Your task to perform on an android device: find snoozed emails in the gmail app Image 0: 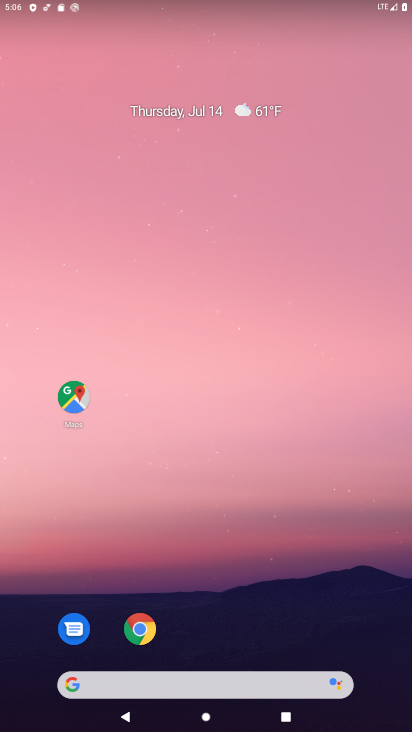
Step 0: drag from (236, 590) to (229, 147)
Your task to perform on an android device: find snoozed emails in the gmail app Image 1: 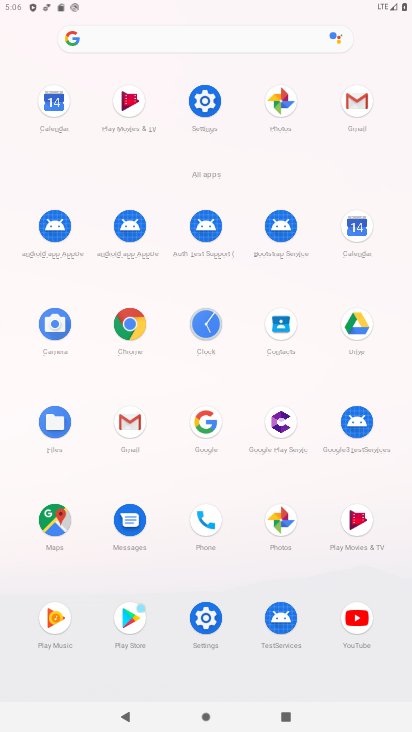
Step 1: click (135, 417)
Your task to perform on an android device: find snoozed emails in the gmail app Image 2: 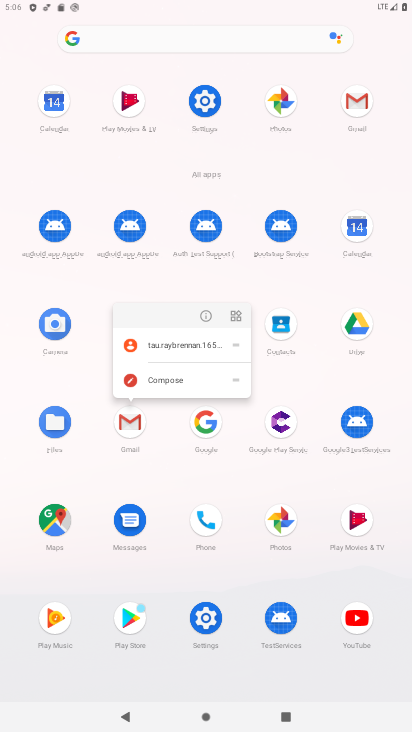
Step 2: click (135, 417)
Your task to perform on an android device: find snoozed emails in the gmail app Image 3: 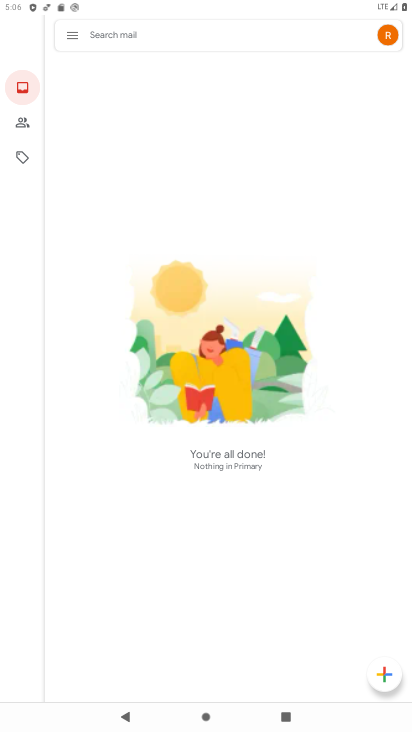
Step 3: click (71, 33)
Your task to perform on an android device: find snoozed emails in the gmail app Image 4: 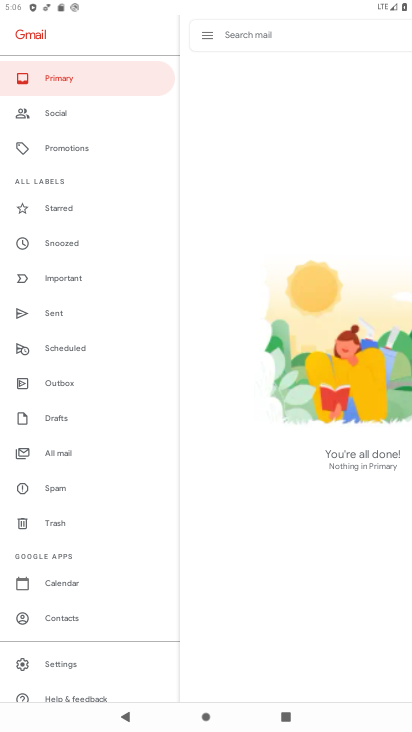
Step 4: click (64, 242)
Your task to perform on an android device: find snoozed emails in the gmail app Image 5: 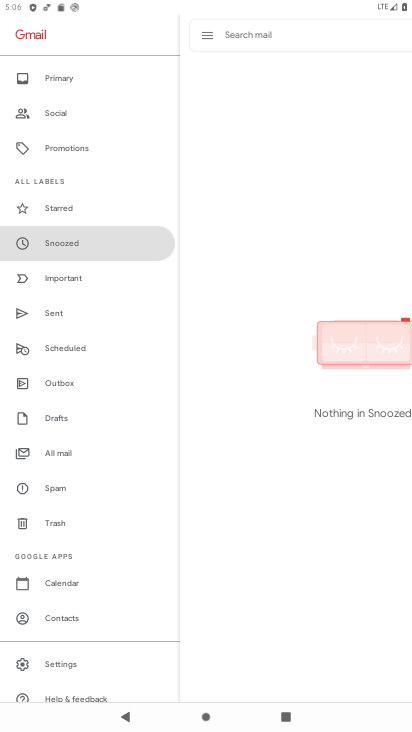
Step 5: click (64, 242)
Your task to perform on an android device: find snoozed emails in the gmail app Image 6: 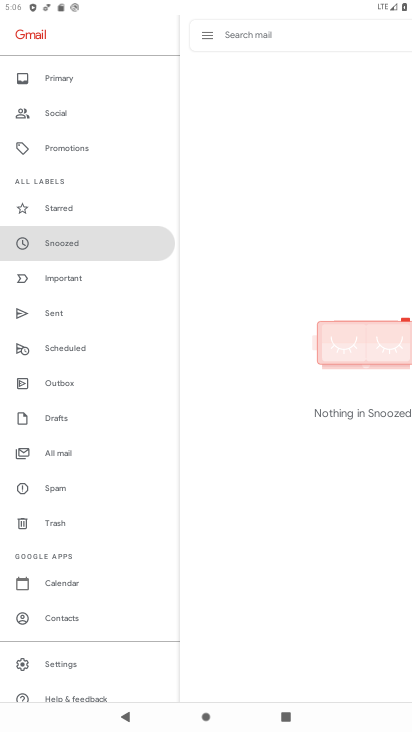
Step 6: task complete